Your task to perform on an android device: turn off wifi Image 0: 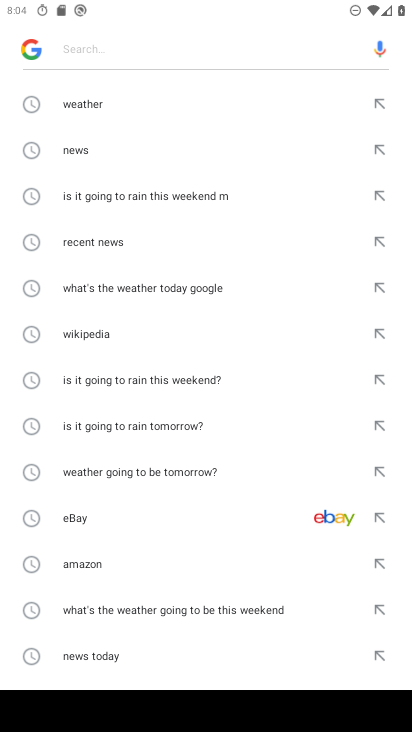
Step 0: press home button
Your task to perform on an android device: turn off wifi Image 1: 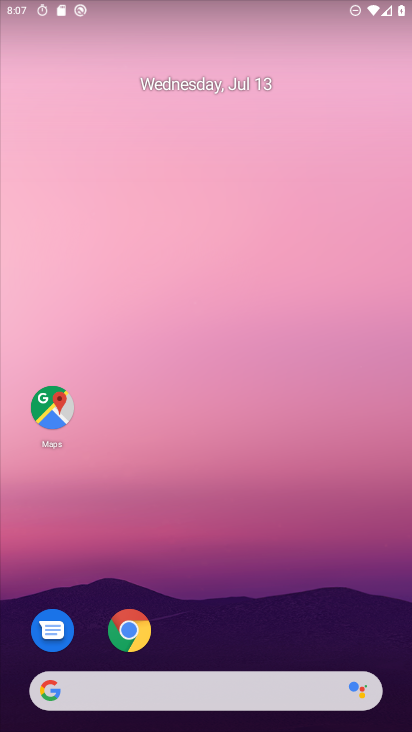
Step 1: drag from (173, 3) to (151, 452)
Your task to perform on an android device: turn off wifi Image 2: 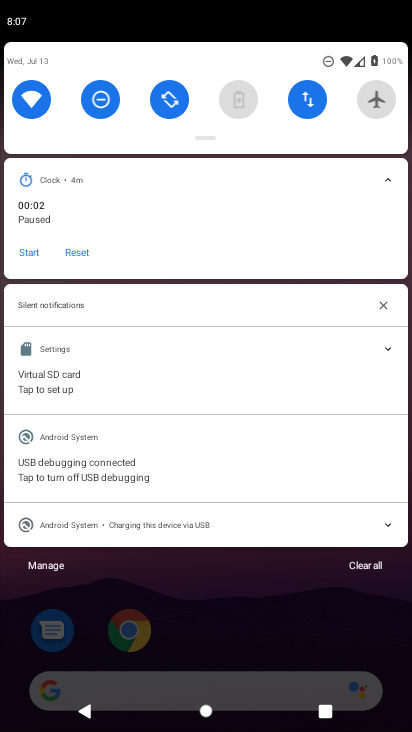
Step 2: click (32, 102)
Your task to perform on an android device: turn off wifi Image 3: 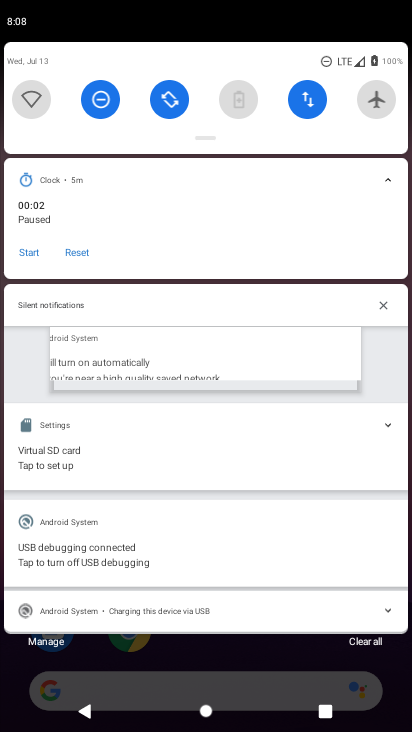
Step 3: task complete